Your task to perform on an android device: see creations saved in the google photos Image 0: 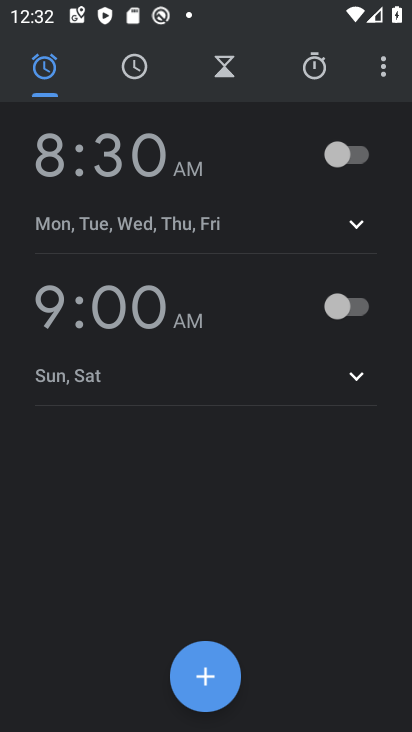
Step 0: press home button
Your task to perform on an android device: see creations saved in the google photos Image 1: 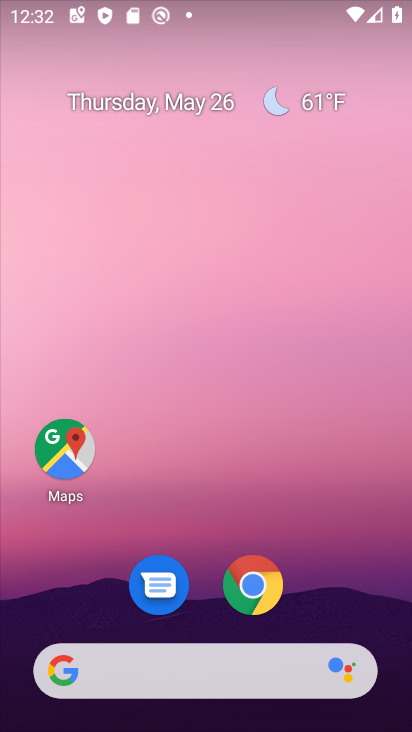
Step 1: drag from (321, 583) to (325, 34)
Your task to perform on an android device: see creations saved in the google photos Image 2: 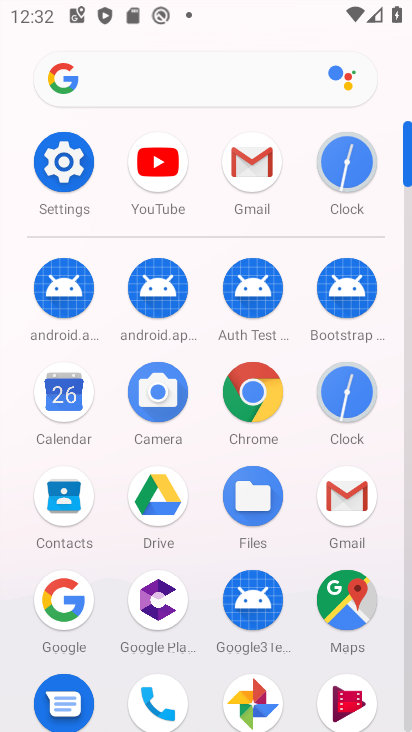
Step 2: click (261, 687)
Your task to perform on an android device: see creations saved in the google photos Image 3: 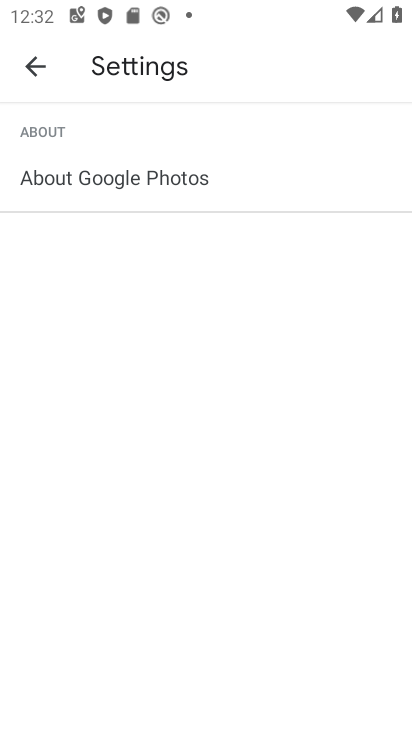
Step 3: click (34, 60)
Your task to perform on an android device: see creations saved in the google photos Image 4: 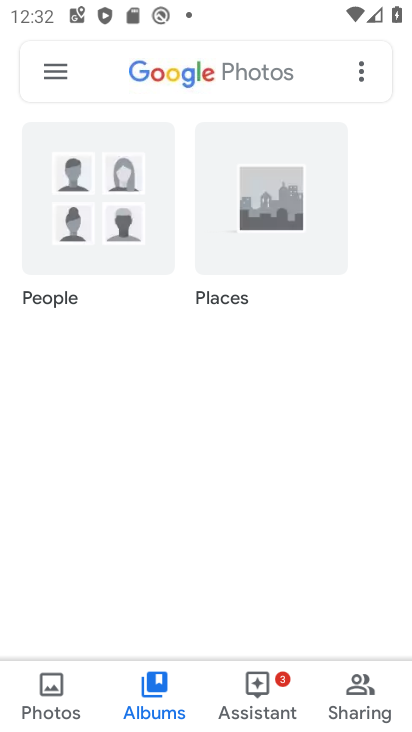
Step 4: click (209, 61)
Your task to perform on an android device: see creations saved in the google photos Image 5: 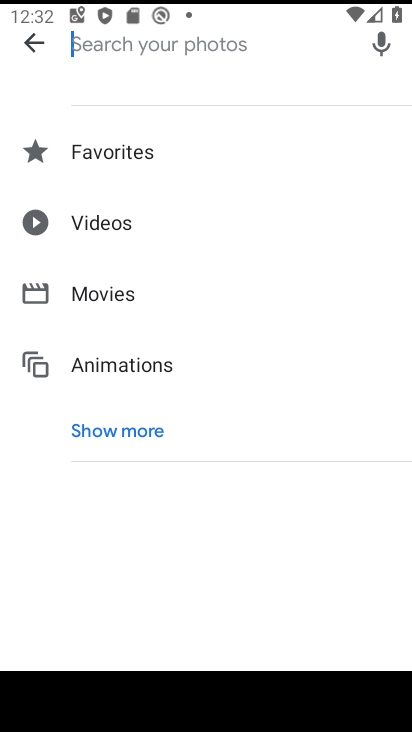
Step 5: click (134, 425)
Your task to perform on an android device: see creations saved in the google photos Image 6: 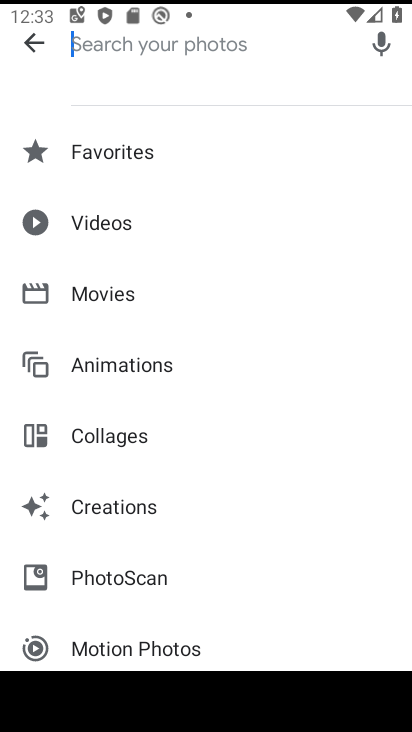
Step 6: click (121, 494)
Your task to perform on an android device: see creations saved in the google photos Image 7: 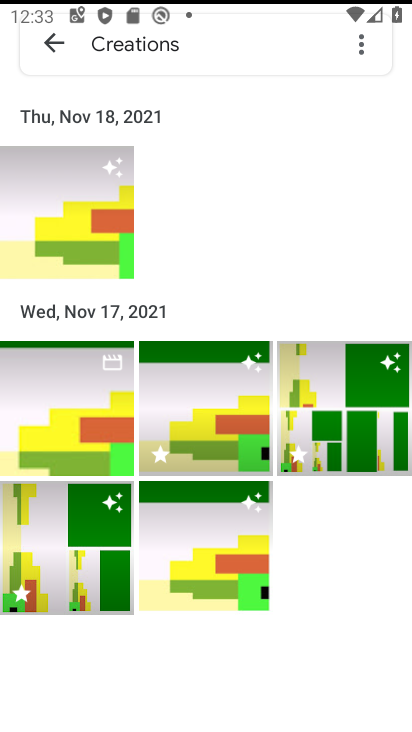
Step 7: task complete